Your task to perform on an android device: Do I have any events today? Image 0: 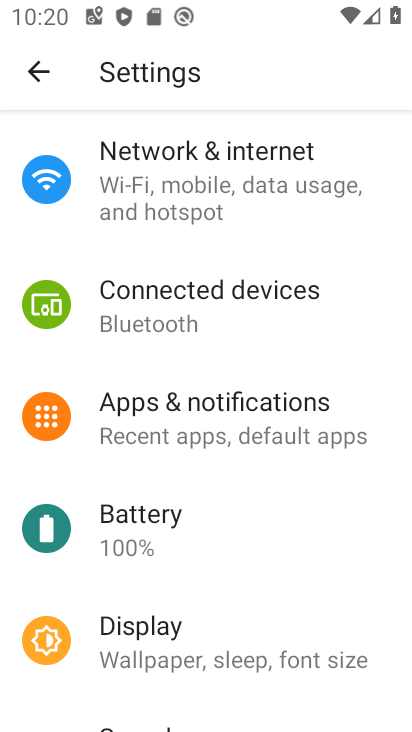
Step 0: press home button
Your task to perform on an android device: Do I have any events today? Image 1: 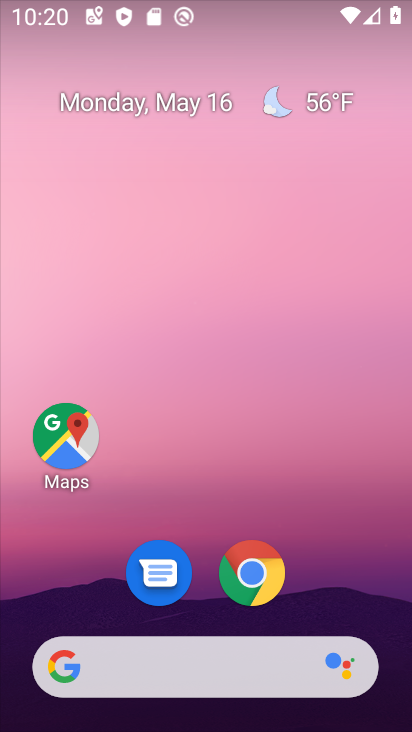
Step 1: drag from (220, 645) to (252, 247)
Your task to perform on an android device: Do I have any events today? Image 2: 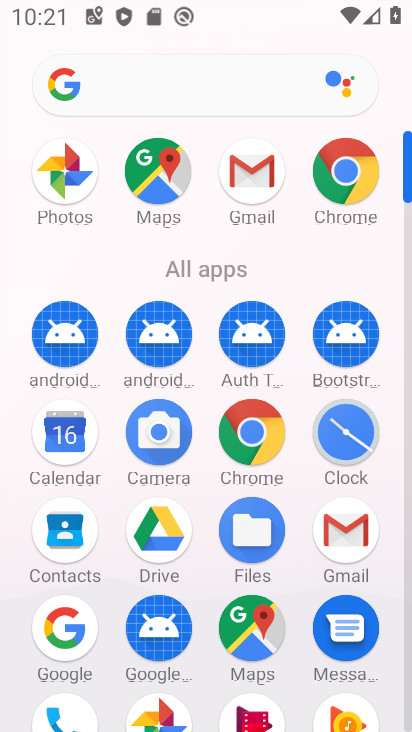
Step 2: click (59, 439)
Your task to perform on an android device: Do I have any events today? Image 3: 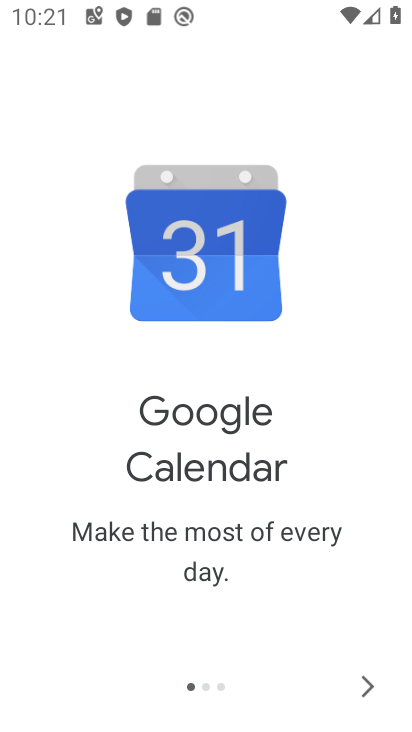
Step 3: click (367, 682)
Your task to perform on an android device: Do I have any events today? Image 4: 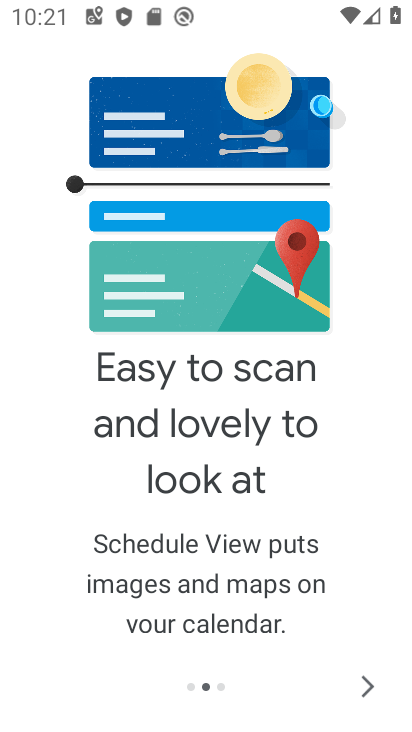
Step 4: click (367, 684)
Your task to perform on an android device: Do I have any events today? Image 5: 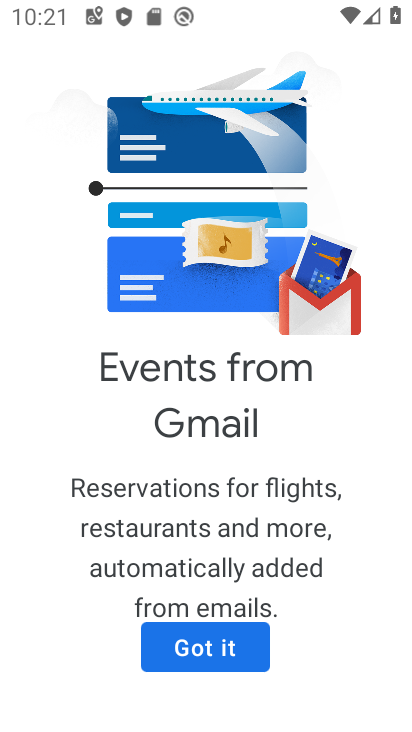
Step 5: click (227, 653)
Your task to perform on an android device: Do I have any events today? Image 6: 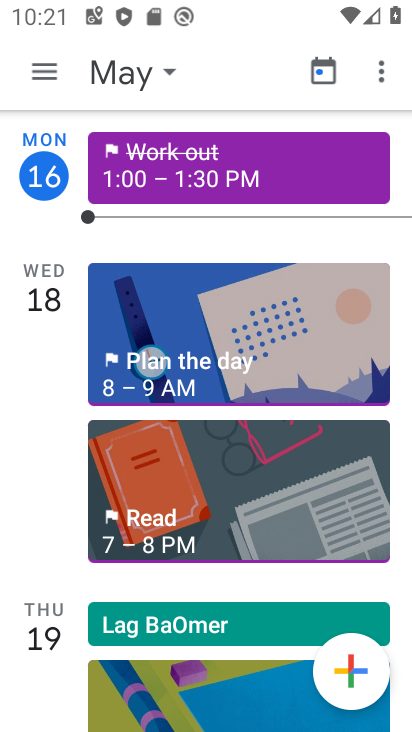
Step 6: task complete